Your task to perform on an android device: Go to Reddit.com Image 0: 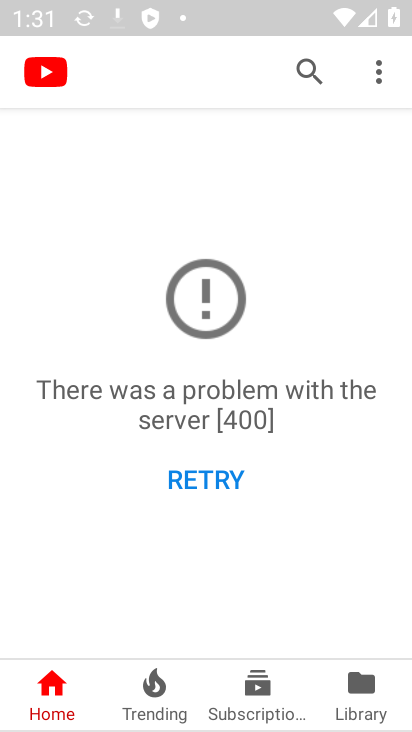
Step 0: drag from (331, 529) to (234, 83)
Your task to perform on an android device: Go to Reddit.com Image 1: 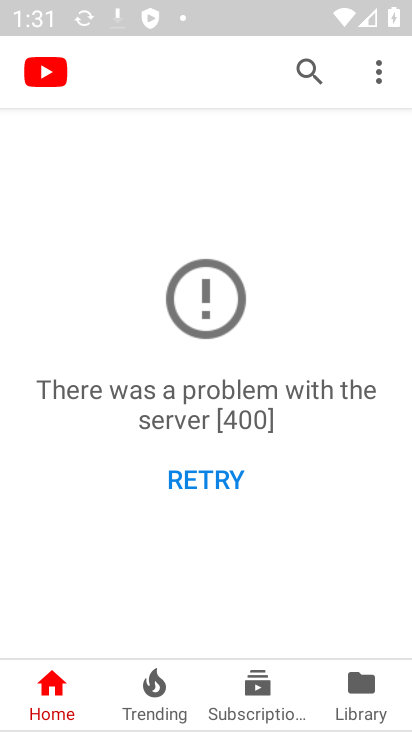
Step 1: press home button
Your task to perform on an android device: Go to Reddit.com Image 2: 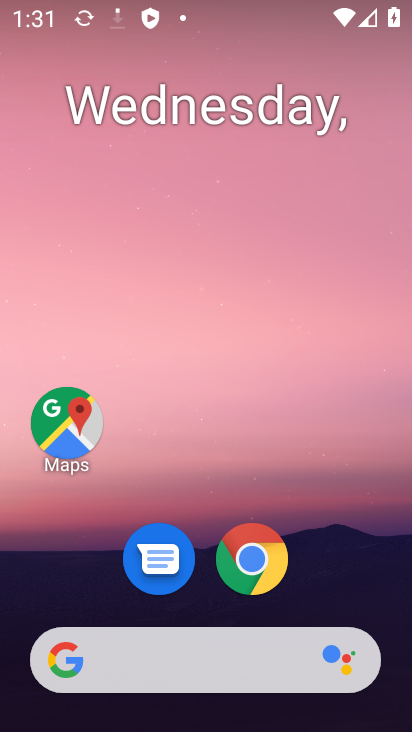
Step 2: drag from (322, 579) to (223, 307)
Your task to perform on an android device: Go to Reddit.com Image 3: 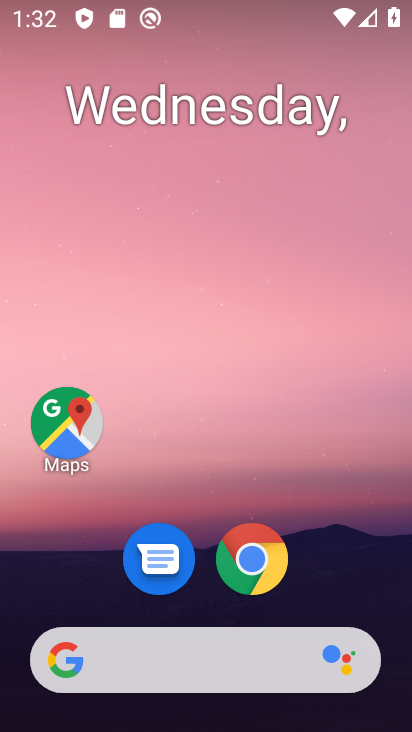
Step 3: click (250, 543)
Your task to perform on an android device: Go to Reddit.com Image 4: 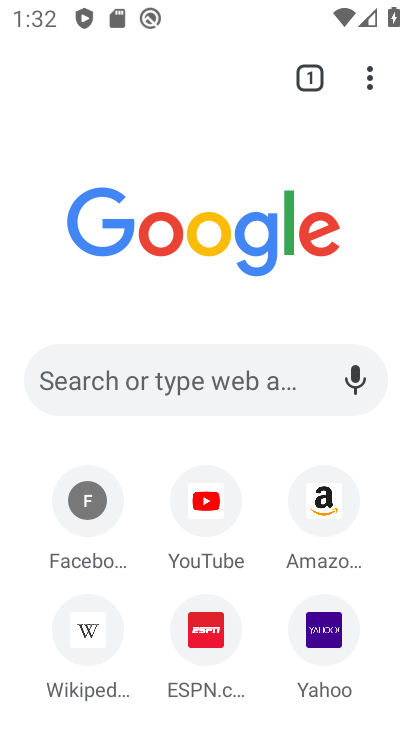
Step 4: click (219, 371)
Your task to perform on an android device: Go to Reddit.com Image 5: 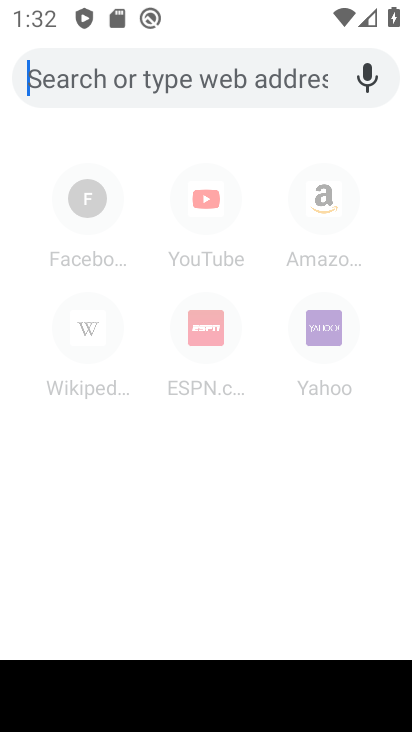
Step 5: type "reddit.com"
Your task to perform on an android device: Go to Reddit.com Image 6: 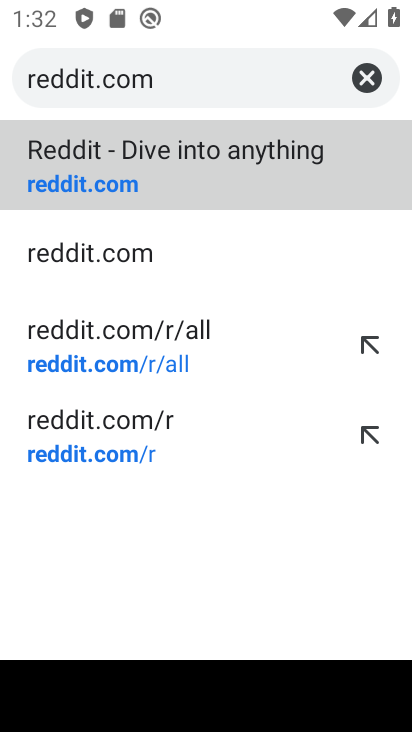
Step 6: click (74, 184)
Your task to perform on an android device: Go to Reddit.com Image 7: 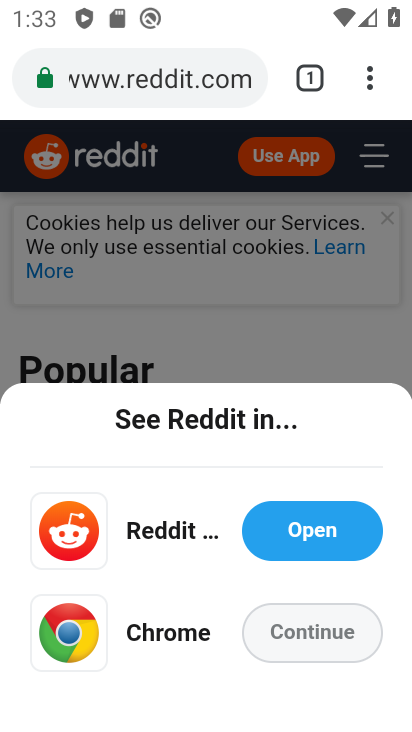
Step 7: task complete